Your task to perform on an android device: Search for sushi restaurants on Maps Image 0: 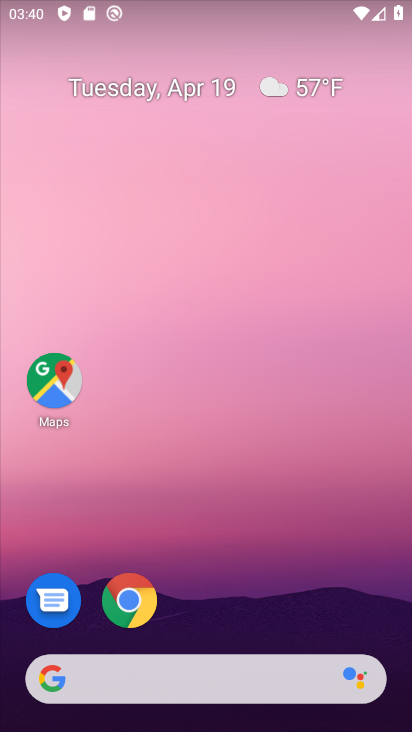
Step 0: click (39, 387)
Your task to perform on an android device: Search for sushi restaurants on Maps Image 1: 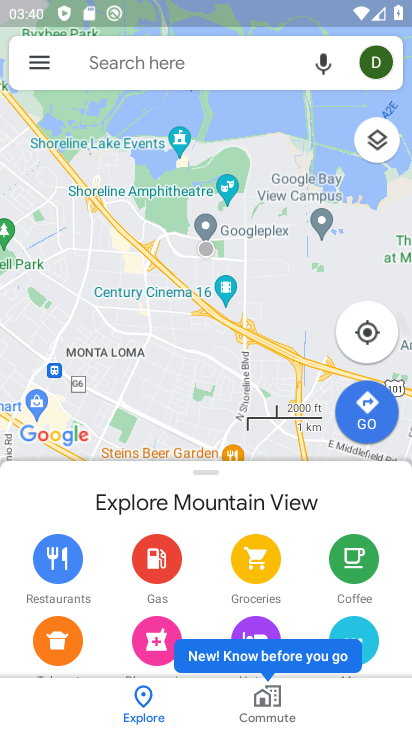
Step 1: click (182, 73)
Your task to perform on an android device: Search for sushi restaurants on Maps Image 2: 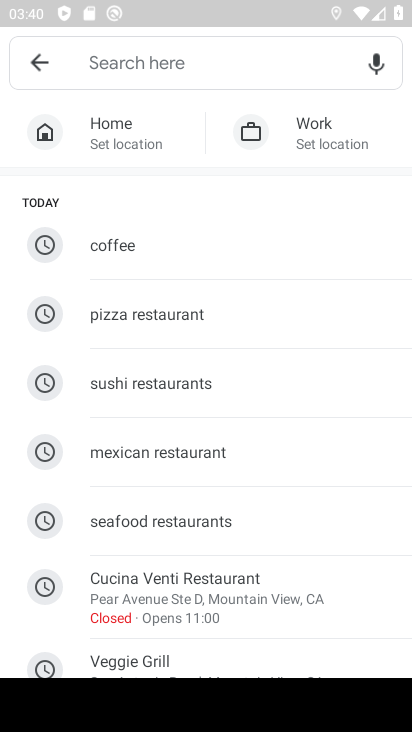
Step 2: type "sushi restaurants"
Your task to perform on an android device: Search for sushi restaurants on Maps Image 3: 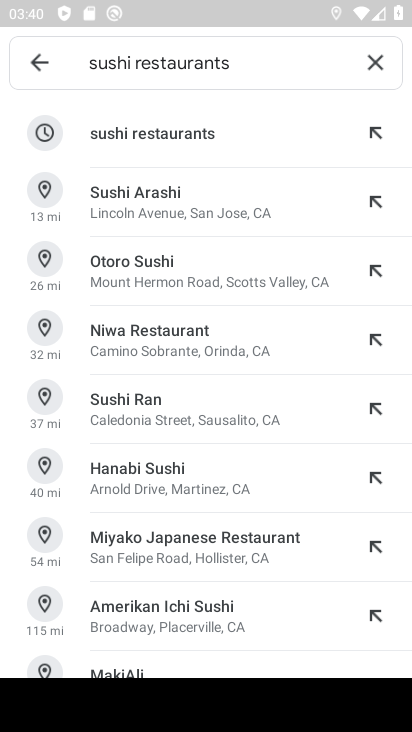
Step 3: click (195, 137)
Your task to perform on an android device: Search for sushi restaurants on Maps Image 4: 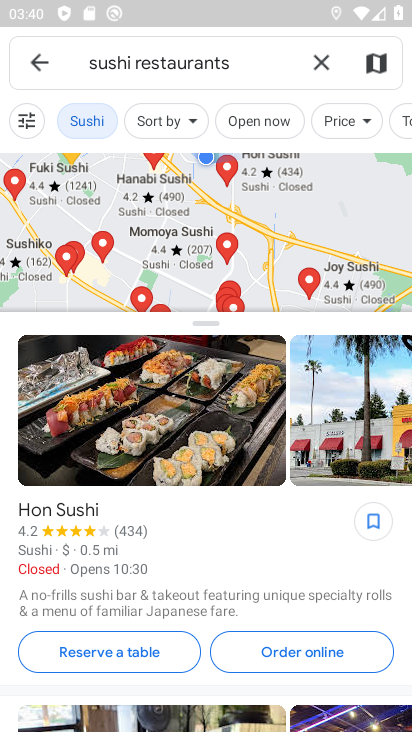
Step 4: task complete